Your task to perform on an android device: toggle translation in the chrome app Image 0: 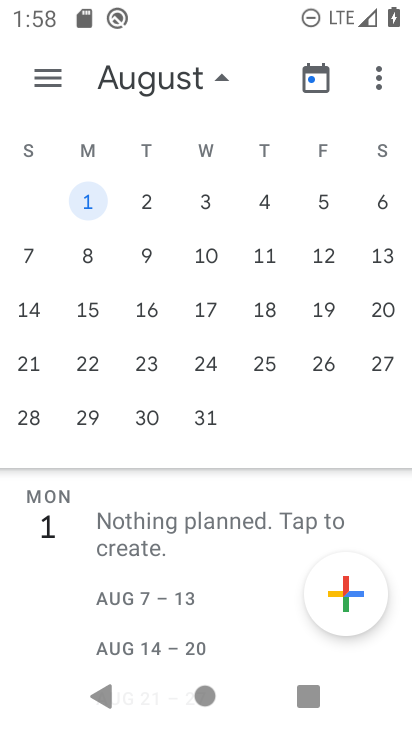
Step 0: press home button
Your task to perform on an android device: toggle translation in the chrome app Image 1: 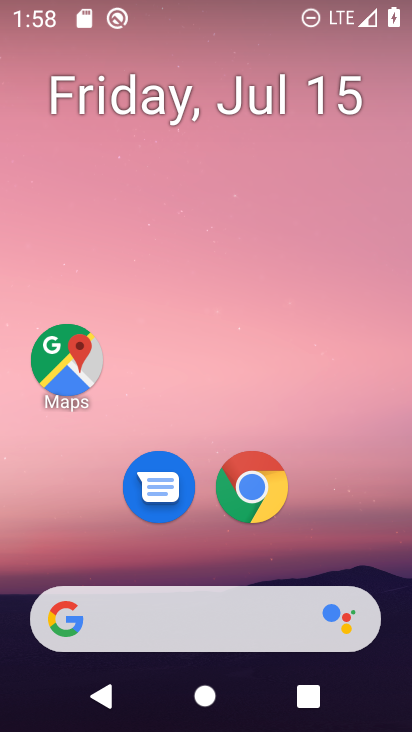
Step 1: click (231, 518)
Your task to perform on an android device: toggle translation in the chrome app Image 2: 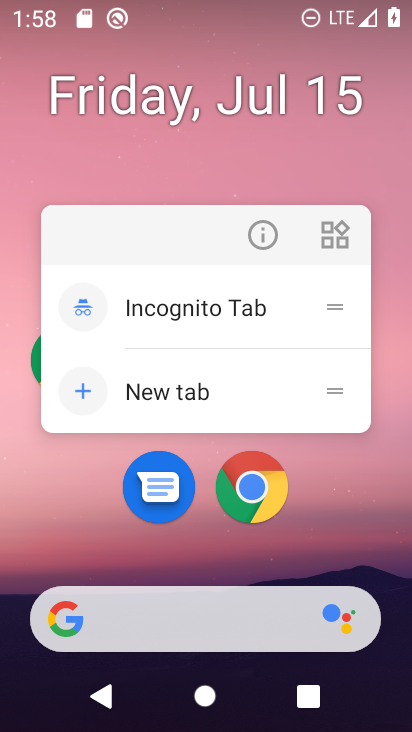
Step 2: click (231, 517)
Your task to perform on an android device: toggle translation in the chrome app Image 3: 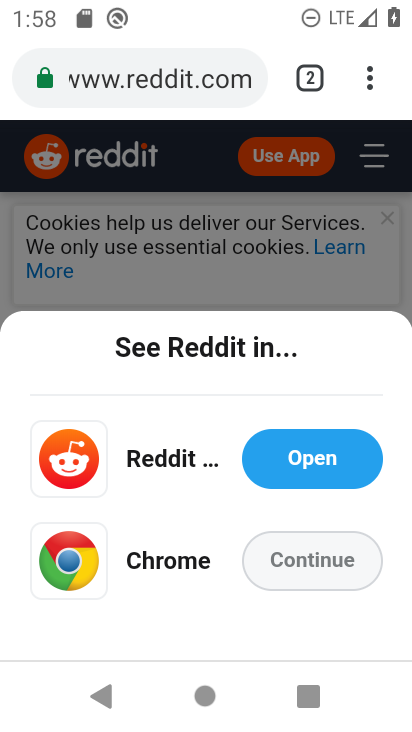
Step 3: click (355, 88)
Your task to perform on an android device: toggle translation in the chrome app Image 4: 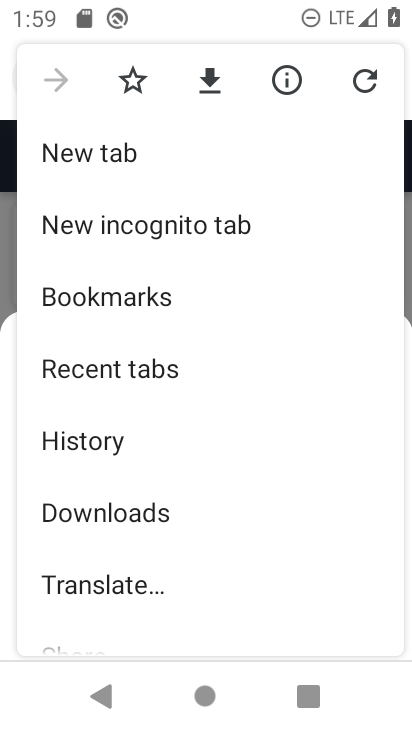
Step 4: drag from (133, 544) to (137, 280)
Your task to perform on an android device: toggle translation in the chrome app Image 5: 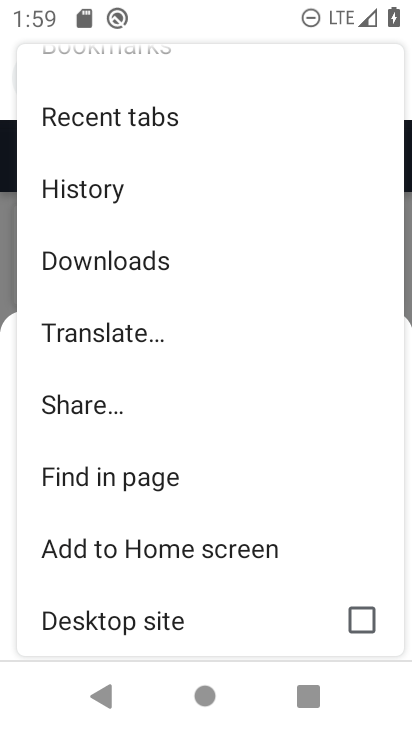
Step 5: click (104, 328)
Your task to perform on an android device: toggle translation in the chrome app Image 6: 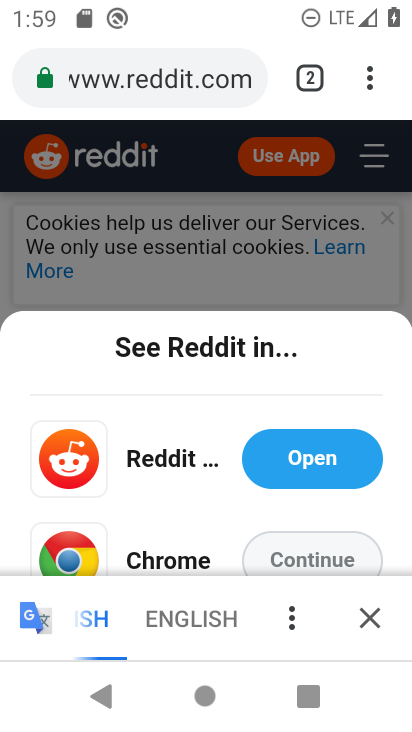
Step 6: click (290, 632)
Your task to perform on an android device: toggle translation in the chrome app Image 7: 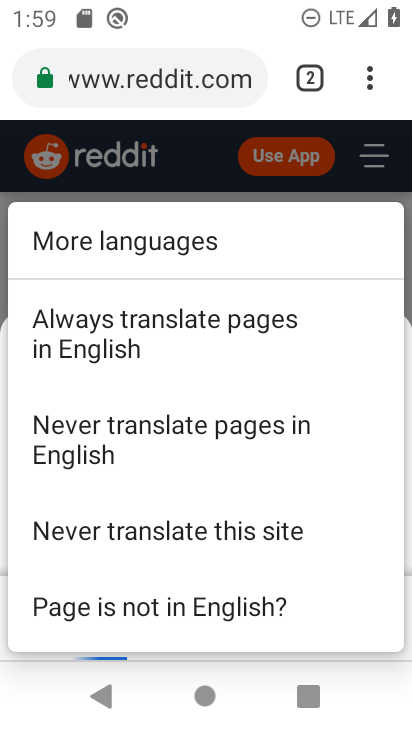
Step 7: click (191, 340)
Your task to perform on an android device: toggle translation in the chrome app Image 8: 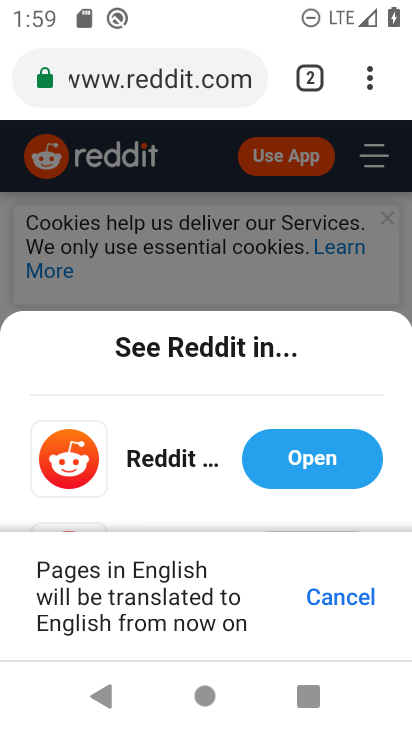
Step 8: task complete